Your task to perform on an android device: change text size in settings app Image 0: 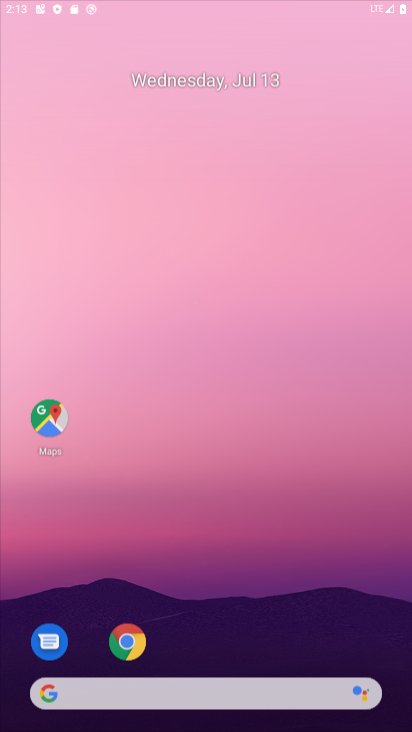
Step 0: click (211, 99)
Your task to perform on an android device: change text size in settings app Image 1: 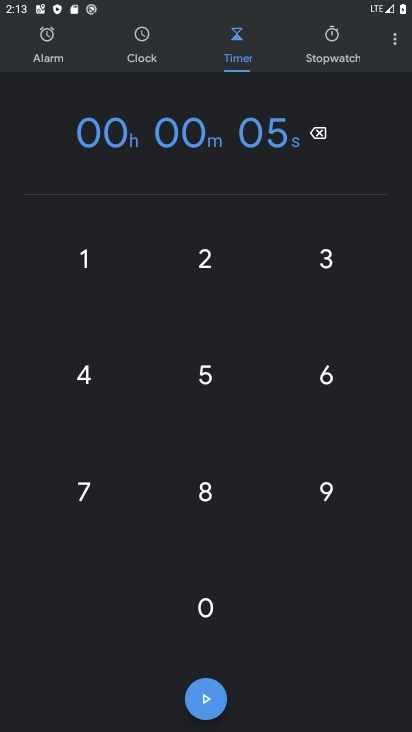
Step 1: press home button
Your task to perform on an android device: change text size in settings app Image 2: 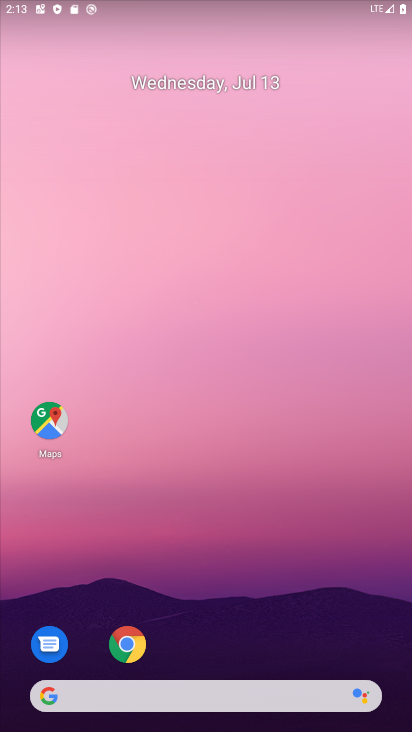
Step 2: drag from (290, 652) to (226, 108)
Your task to perform on an android device: change text size in settings app Image 3: 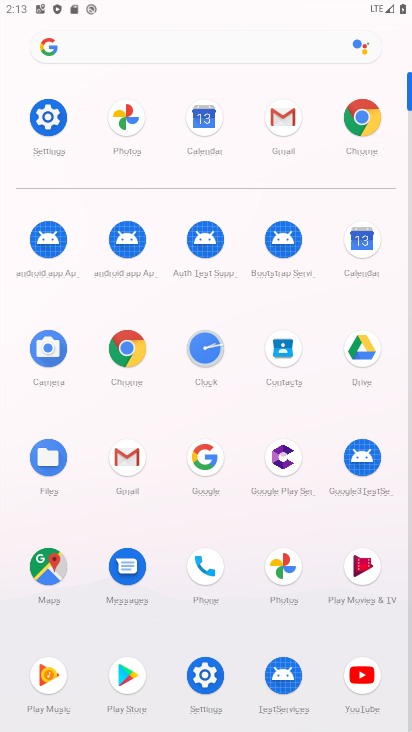
Step 3: click (60, 113)
Your task to perform on an android device: change text size in settings app Image 4: 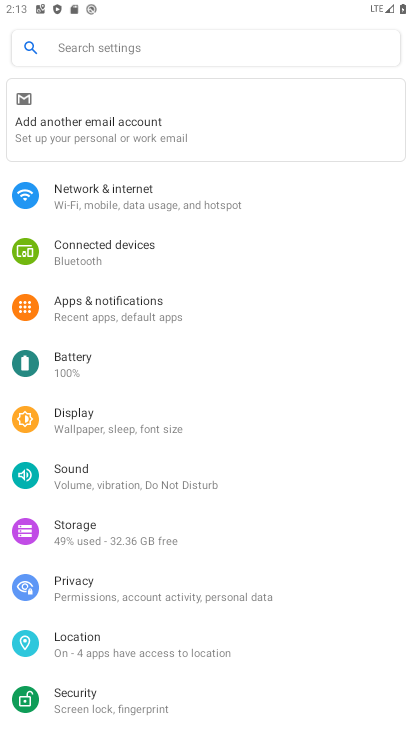
Step 4: drag from (199, 653) to (207, 159)
Your task to perform on an android device: change text size in settings app Image 5: 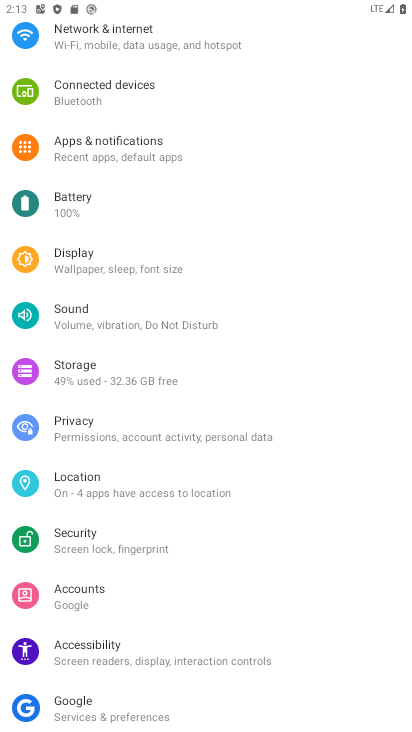
Step 5: click (132, 271)
Your task to perform on an android device: change text size in settings app Image 6: 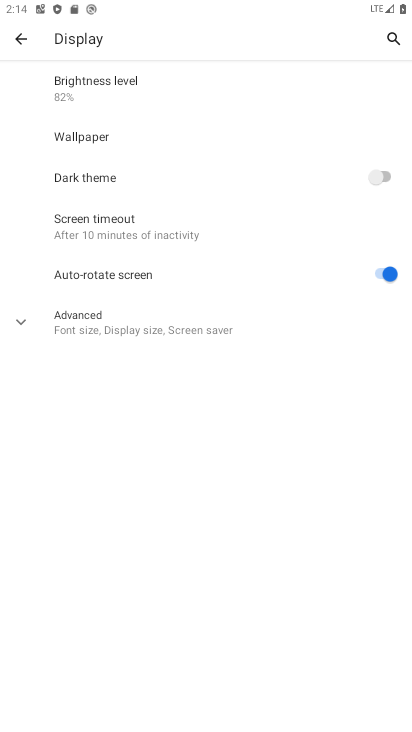
Step 6: click (104, 333)
Your task to perform on an android device: change text size in settings app Image 7: 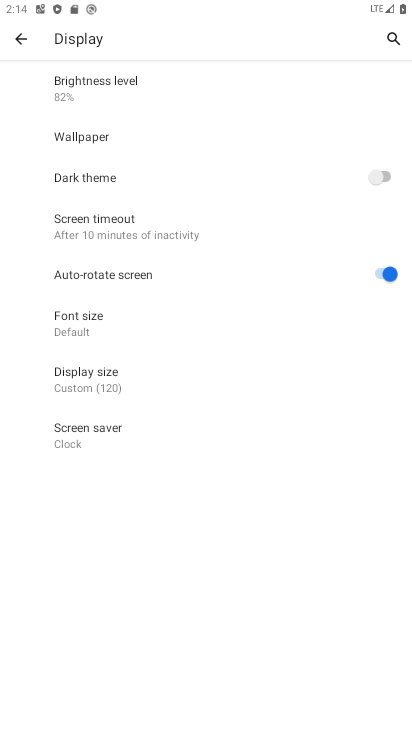
Step 7: click (83, 332)
Your task to perform on an android device: change text size in settings app Image 8: 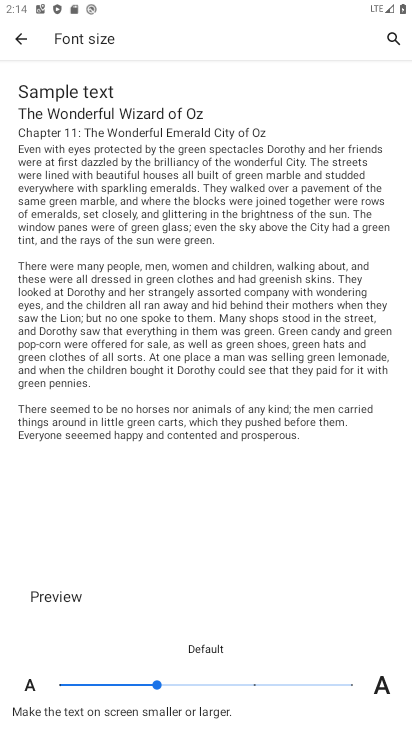
Step 8: click (104, 689)
Your task to perform on an android device: change text size in settings app Image 9: 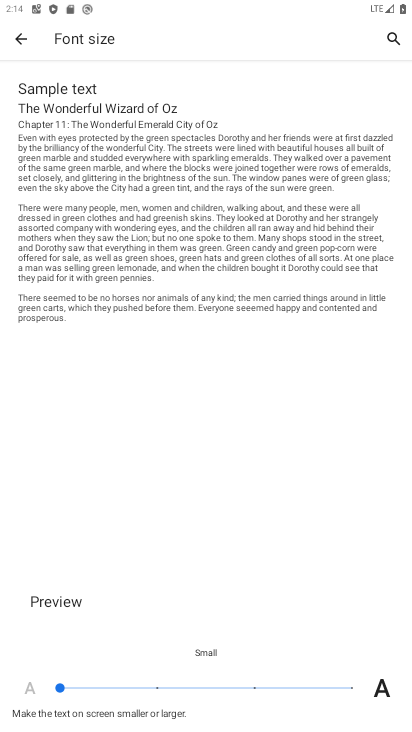
Step 9: task complete